Your task to perform on an android device: Open notification settings Image 0: 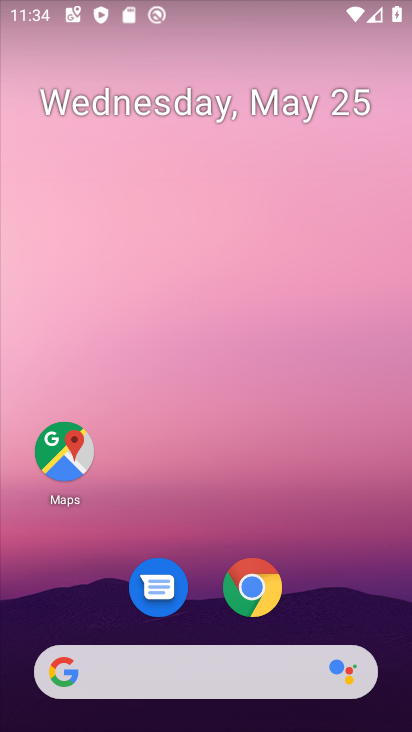
Step 0: drag from (288, 664) to (225, 157)
Your task to perform on an android device: Open notification settings Image 1: 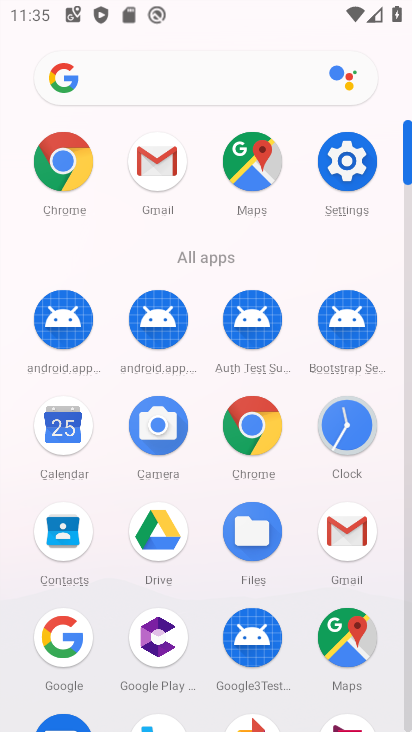
Step 1: click (323, 166)
Your task to perform on an android device: Open notification settings Image 2: 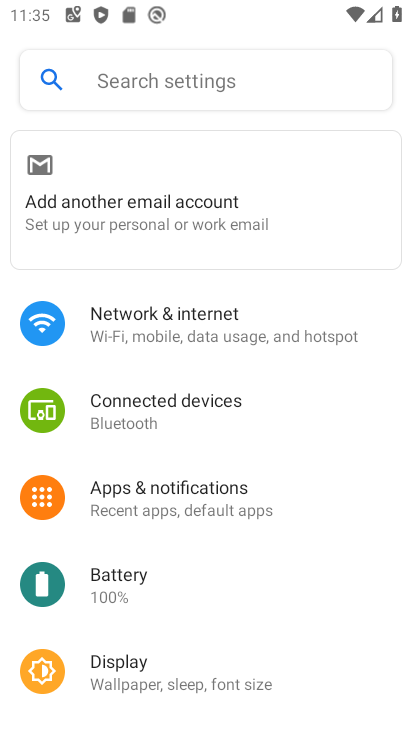
Step 2: click (161, 90)
Your task to perform on an android device: Open notification settings Image 3: 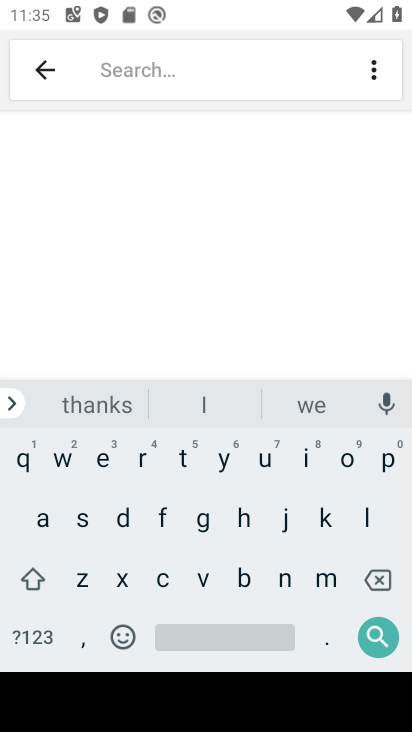
Step 3: click (276, 594)
Your task to perform on an android device: Open notification settings Image 4: 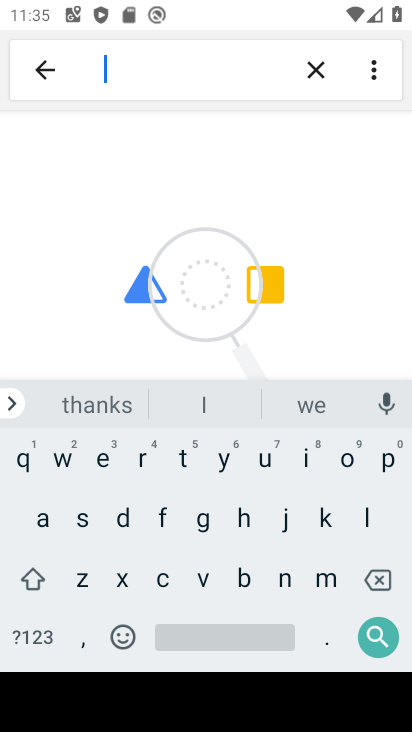
Step 4: click (338, 458)
Your task to perform on an android device: Open notification settings Image 5: 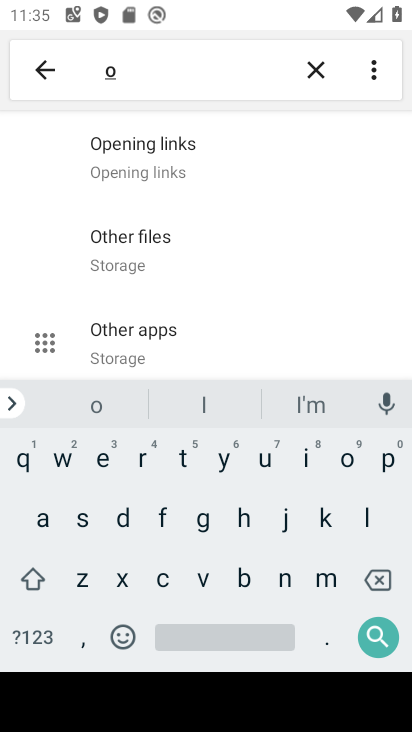
Step 5: click (384, 579)
Your task to perform on an android device: Open notification settings Image 6: 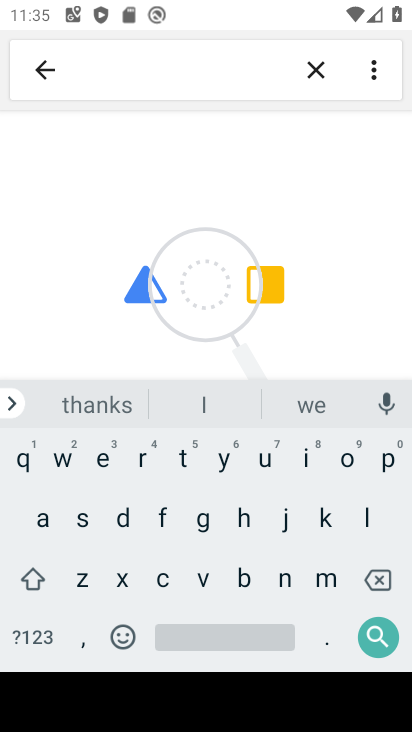
Step 6: click (285, 577)
Your task to perform on an android device: Open notification settings Image 7: 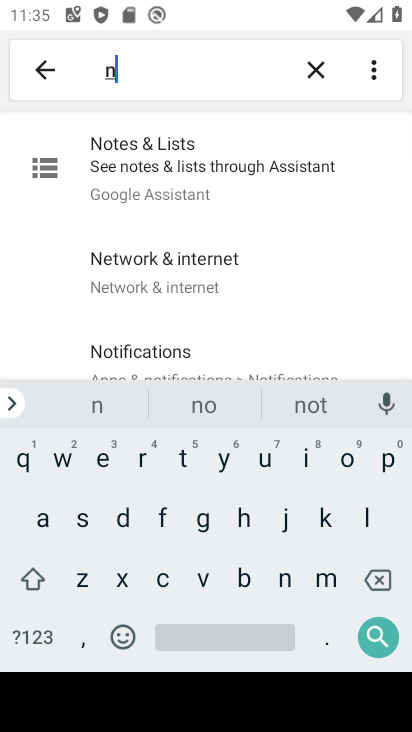
Step 7: click (340, 459)
Your task to perform on an android device: Open notification settings Image 8: 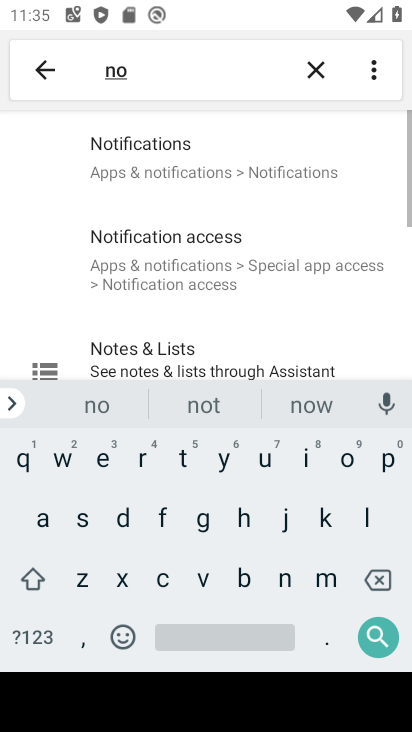
Step 8: click (179, 178)
Your task to perform on an android device: Open notification settings Image 9: 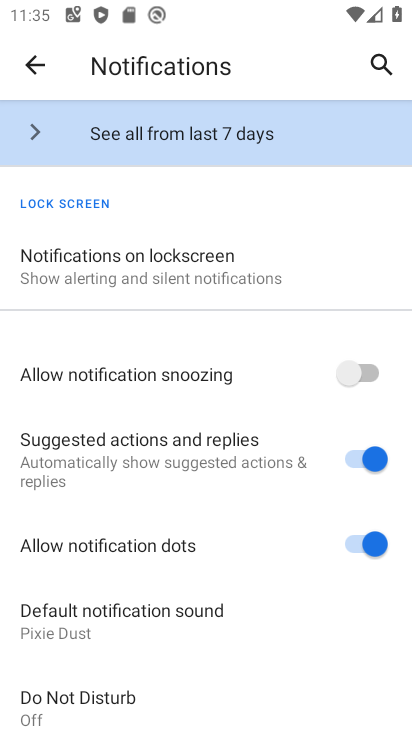
Step 9: click (169, 274)
Your task to perform on an android device: Open notification settings Image 10: 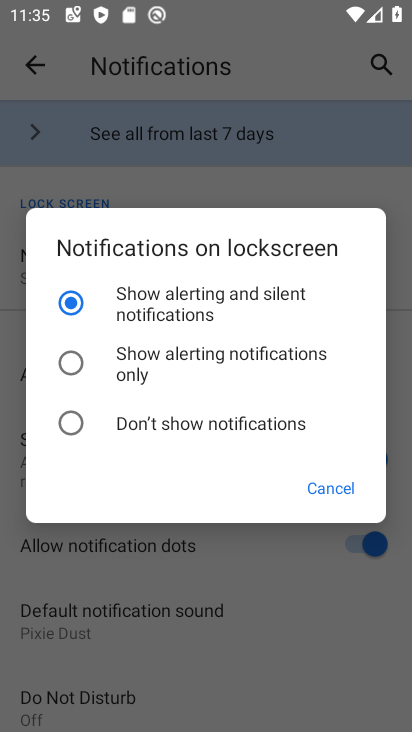
Step 10: task complete